Your task to perform on an android device: check data usage Image 0: 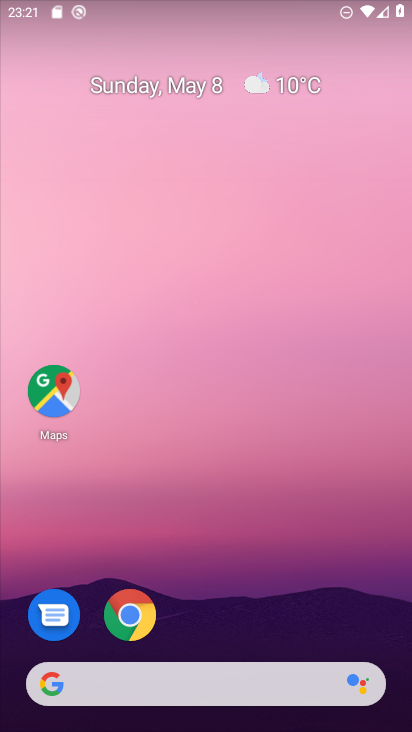
Step 0: drag from (336, 587) to (302, 53)
Your task to perform on an android device: check data usage Image 1: 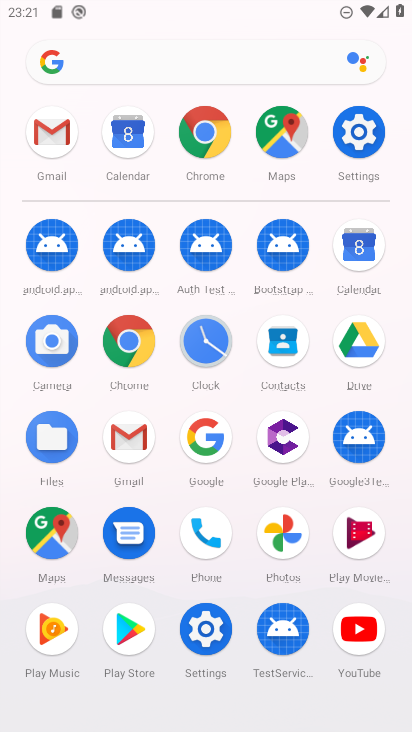
Step 1: click (357, 131)
Your task to perform on an android device: check data usage Image 2: 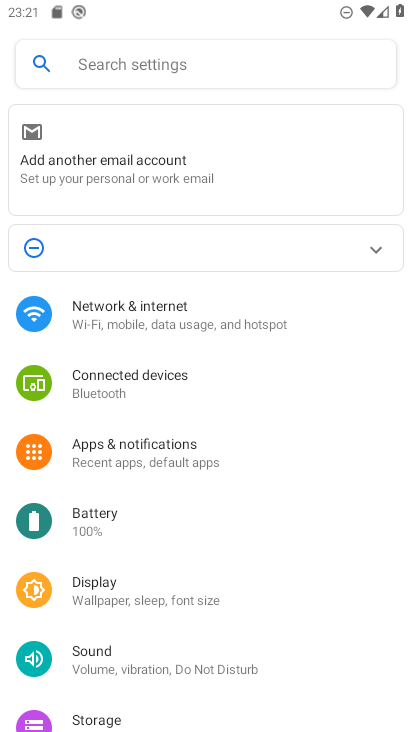
Step 2: click (173, 342)
Your task to perform on an android device: check data usage Image 3: 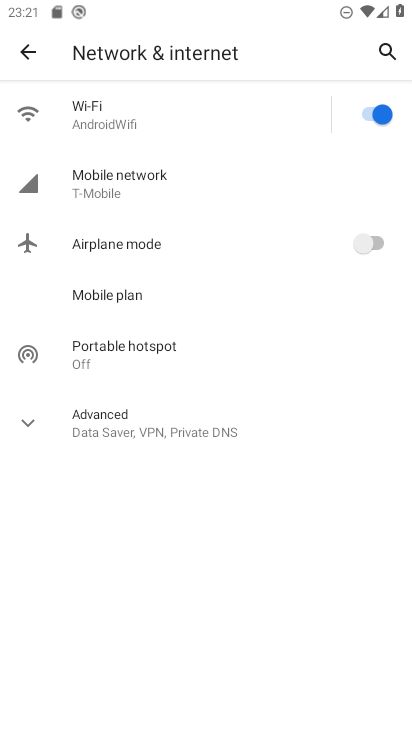
Step 3: click (126, 177)
Your task to perform on an android device: check data usage Image 4: 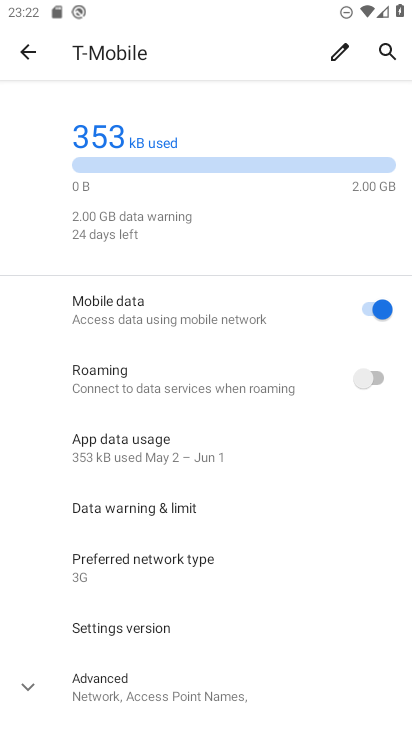
Step 4: task complete